Your task to perform on an android device: Open Yahoo.com Image 0: 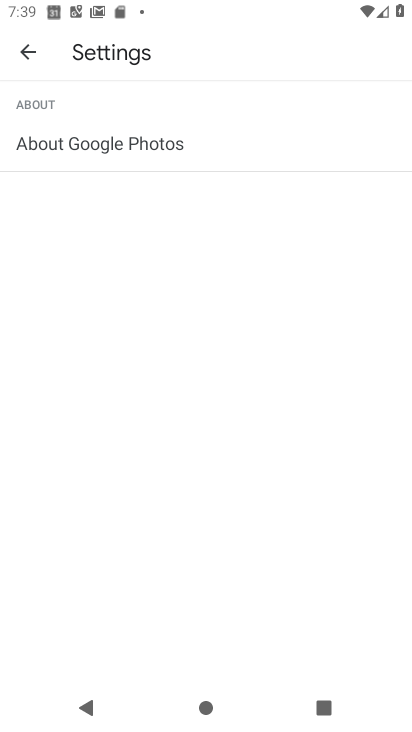
Step 0: drag from (203, 526) to (291, 121)
Your task to perform on an android device: Open Yahoo.com Image 1: 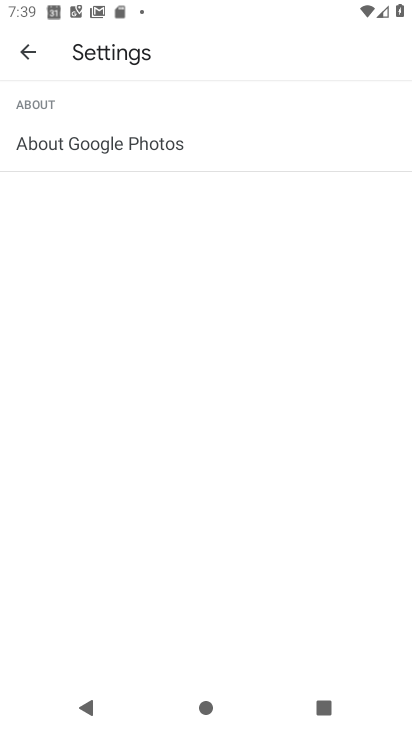
Step 1: press home button
Your task to perform on an android device: Open Yahoo.com Image 2: 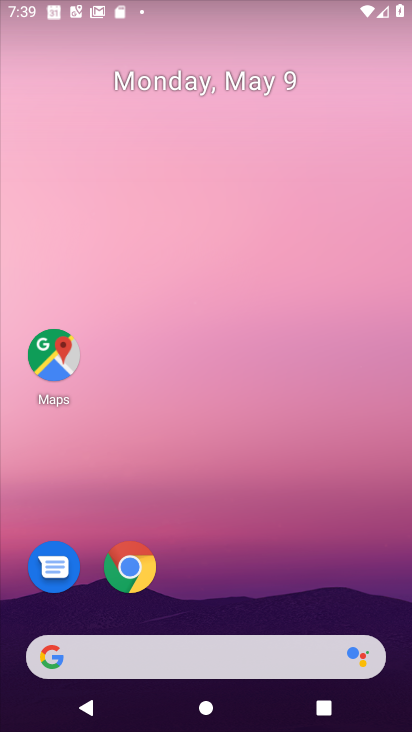
Step 2: drag from (175, 590) to (253, 176)
Your task to perform on an android device: Open Yahoo.com Image 3: 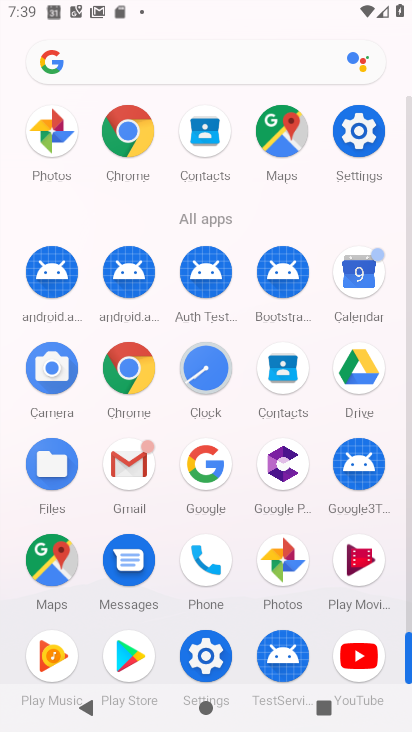
Step 3: click (189, 69)
Your task to perform on an android device: Open Yahoo.com Image 4: 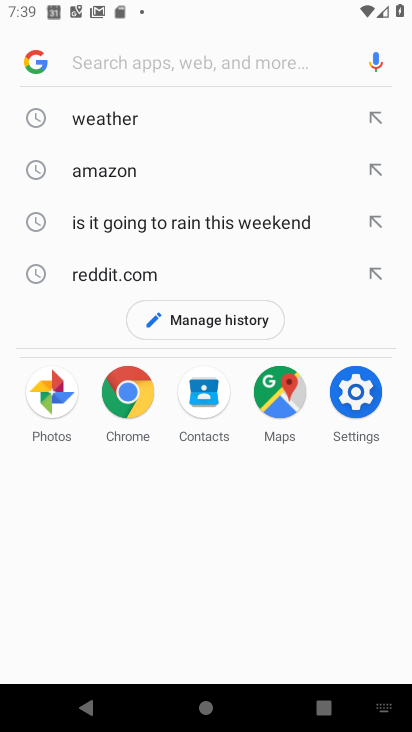
Step 4: type "yahoo.com"
Your task to perform on an android device: Open Yahoo.com Image 5: 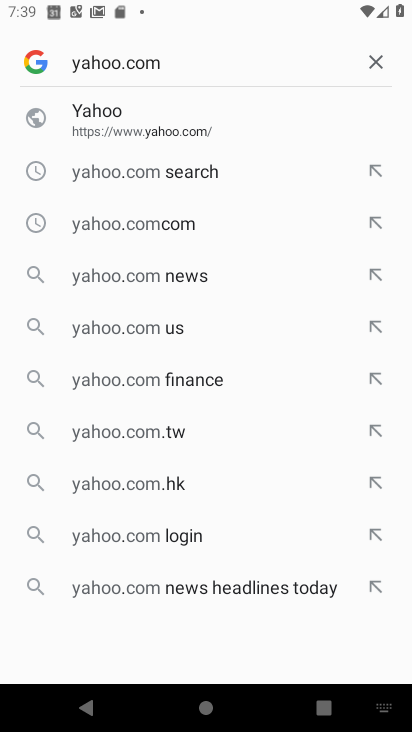
Step 5: click (141, 112)
Your task to perform on an android device: Open Yahoo.com Image 6: 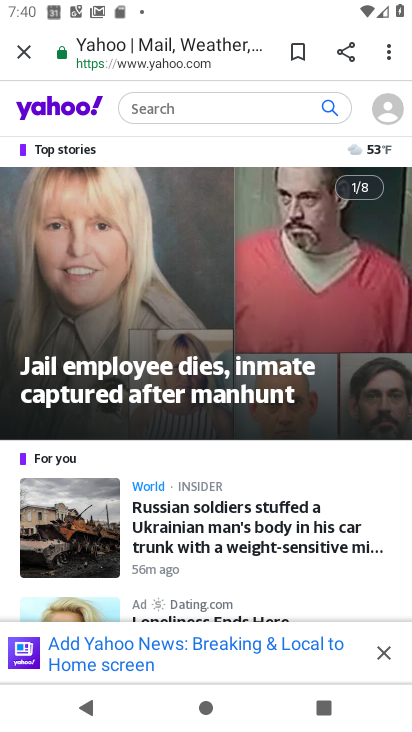
Step 6: task complete